Your task to perform on an android device: Go to Yahoo.com Image 0: 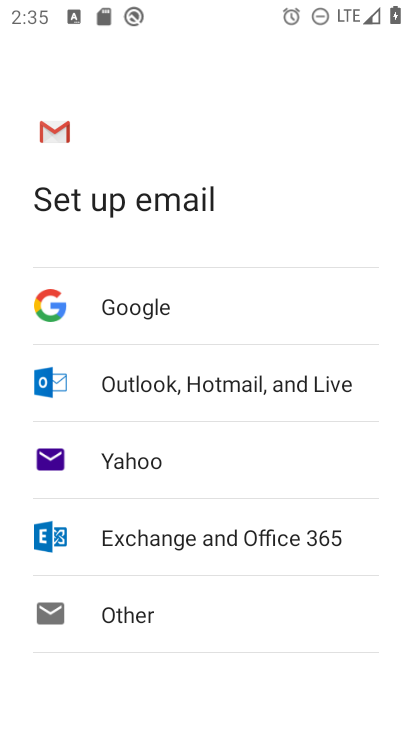
Step 0: press home button
Your task to perform on an android device: Go to Yahoo.com Image 1: 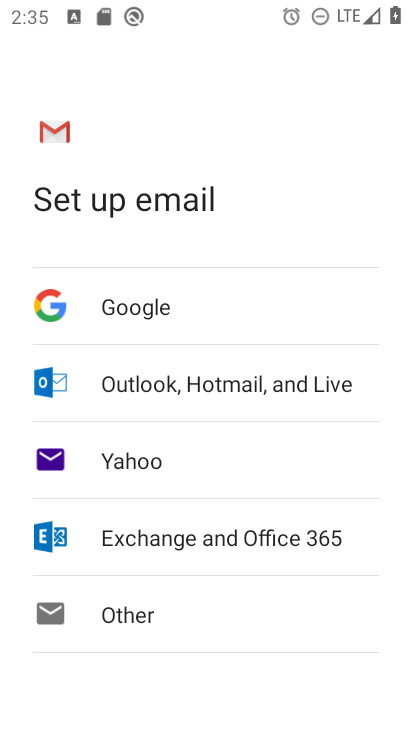
Step 1: press home button
Your task to perform on an android device: Go to Yahoo.com Image 2: 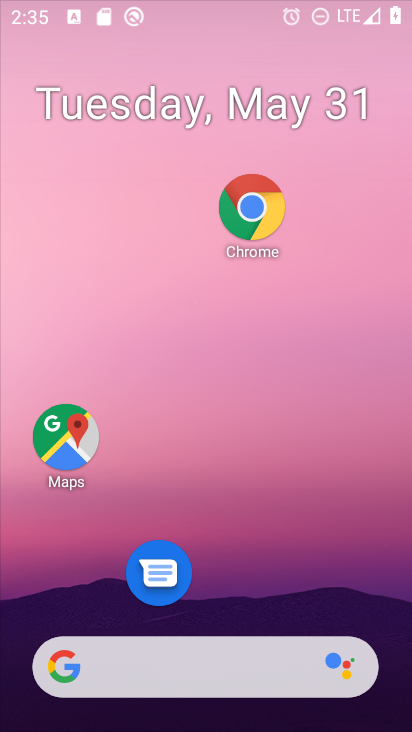
Step 2: press home button
Your task to perform on an android device: Go to Yahoo.com Image 3: 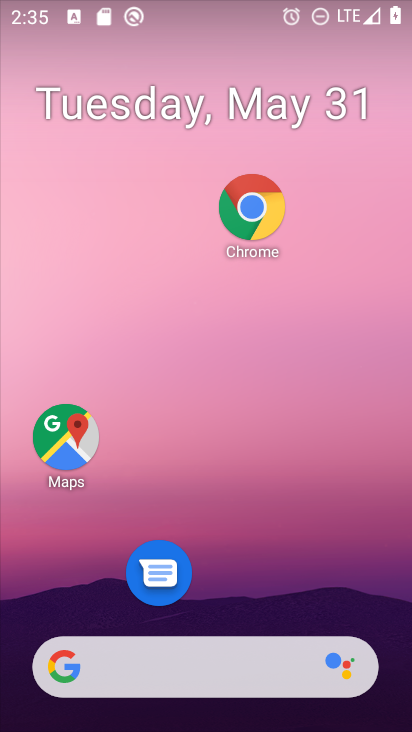
Step 3: drag from (297, 572) to (331, 145)
Your task to perform on an android device: Go to Yahoo.com Image 4: 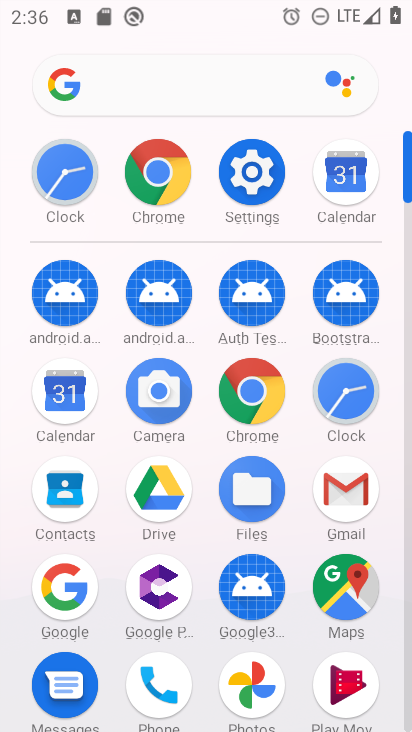
Step 4: click (251, 403)
Your task to perform on an android device: Go to Yahoo.com Image 5: 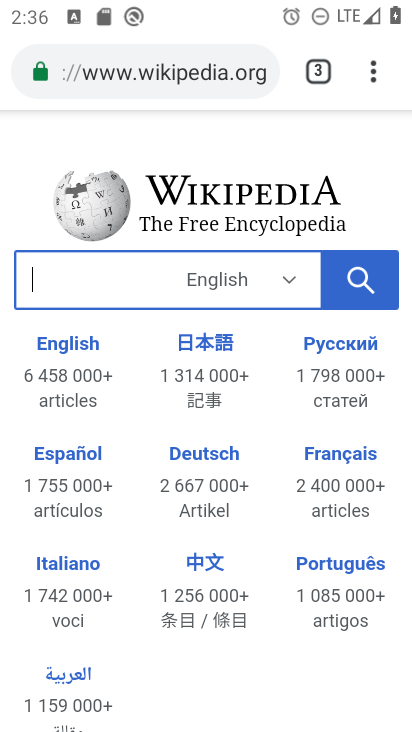
Step 5: click (245, 73)
Your task to perform on an android device: Go to Yahoo.com Image 6: 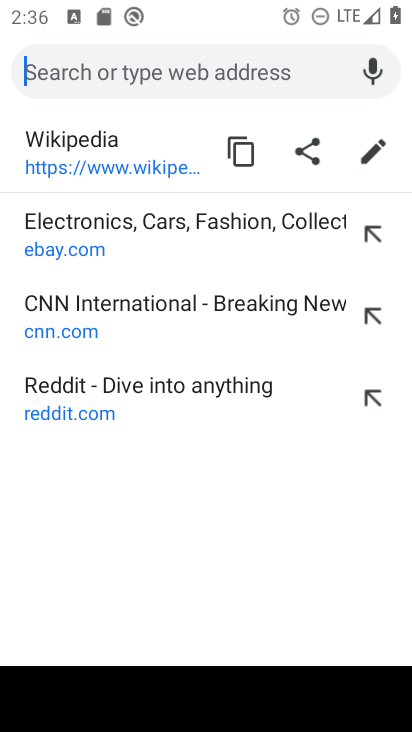
Step 6: type "yahoo"
Your task to perform on an android device: Go to Yahoo.com Image 7: 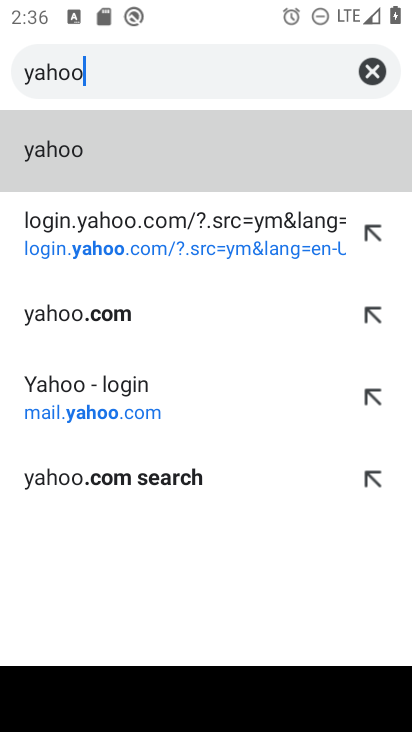
Step 7: click (239, 237)
Your task to perform on an android device: Go to Yahoo.com Image 8: 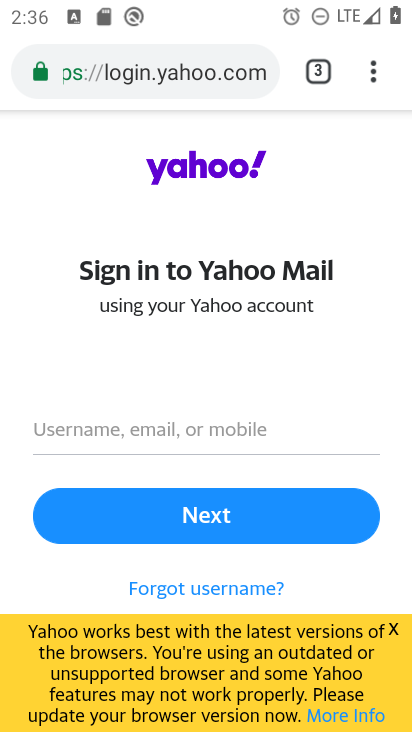
Step 8: task complete